Your task to perform on an android device: change keyboard looks Image 0: 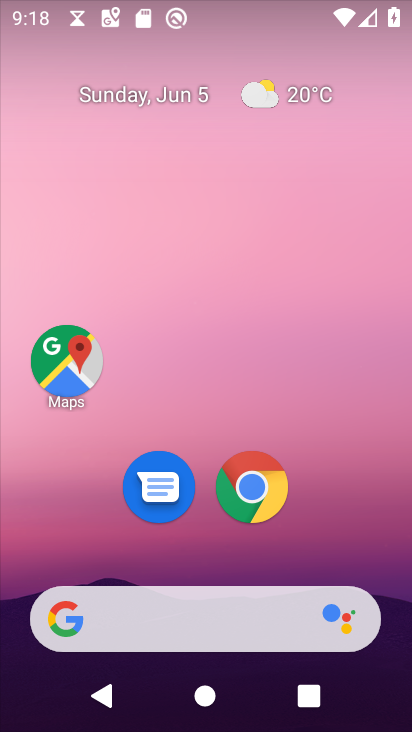
Step 0: drag from (310, 532) to (279, 226)
Your task to perform on an android device: change keyboard looks Image 1: 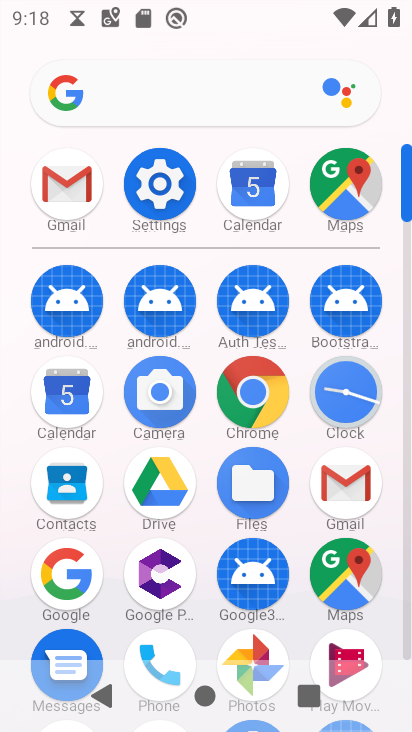
Step 1: click (139, 183)
Your task to perform on an android device: change keyboard looks Image 2: 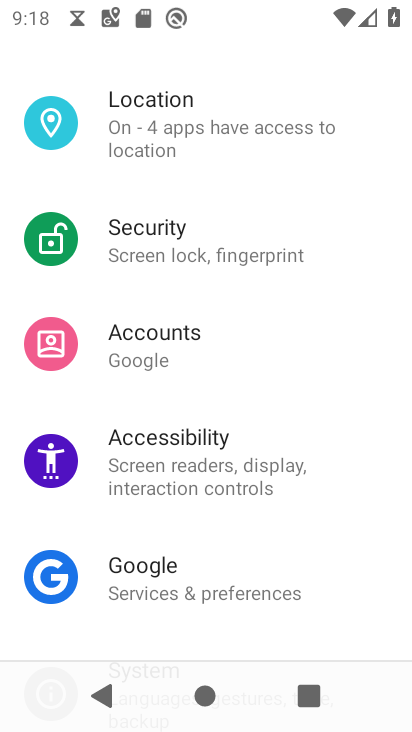
Step 2: drag from (203, 575) to (240, 173)
Your task to perform on an android device: change keyboard looks Image 3: 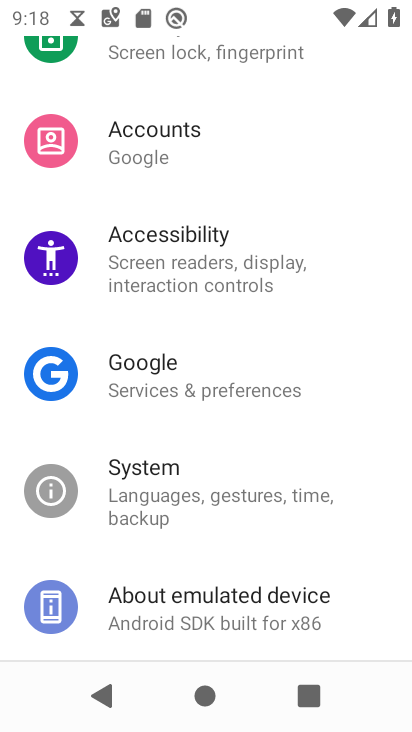
Step 3: click (222, 511)
Your task to perform on an android device: change keyboard looks Image 4: 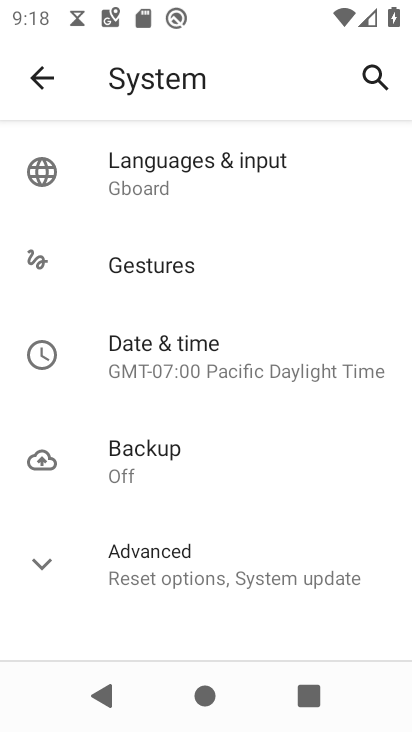
Step 4: click (174, 177)
Your task to perform on an android device: change keyboard looks Image 5: 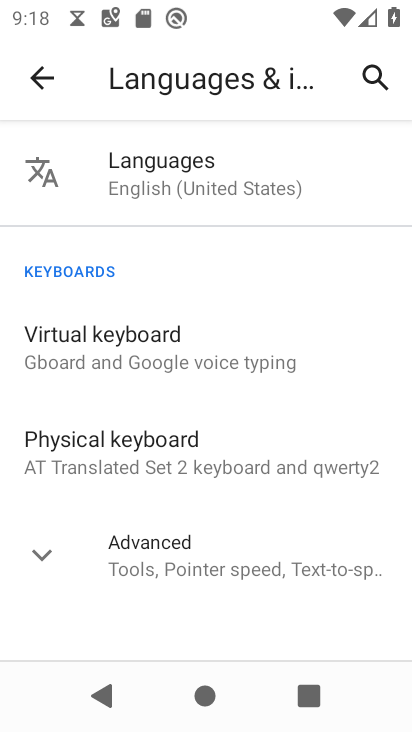
Step 5: click (153, 344)
Your task to perform on an android device: change keyboard looks Image 6: 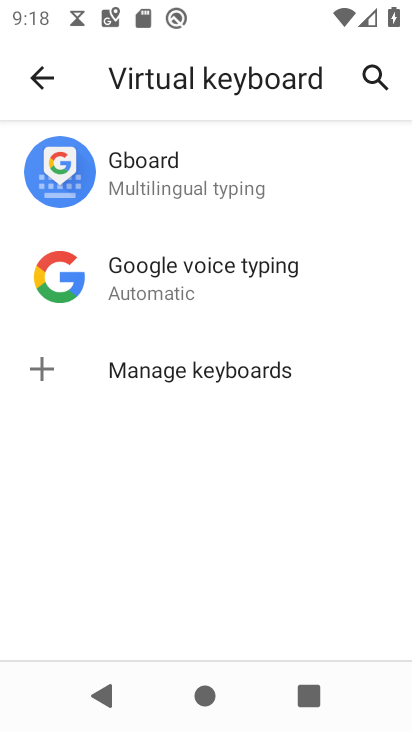
Step 6: click (132, 162)
Your task to perform on an android device: change keyboard looks Image 7: 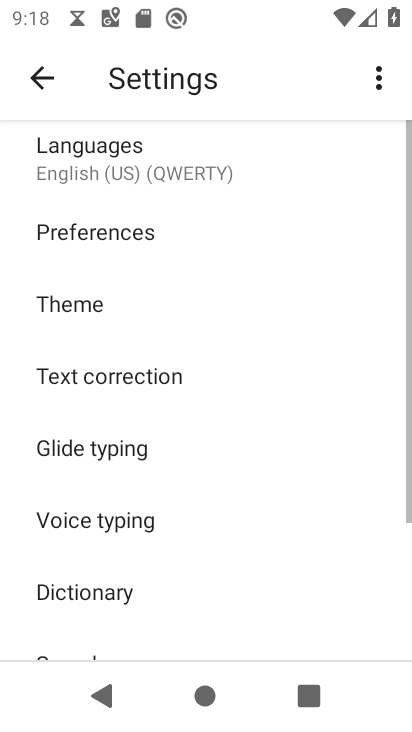
Step 7: click (59, 305)
Your task to perform on an android device: change keyboard looks Image 8: 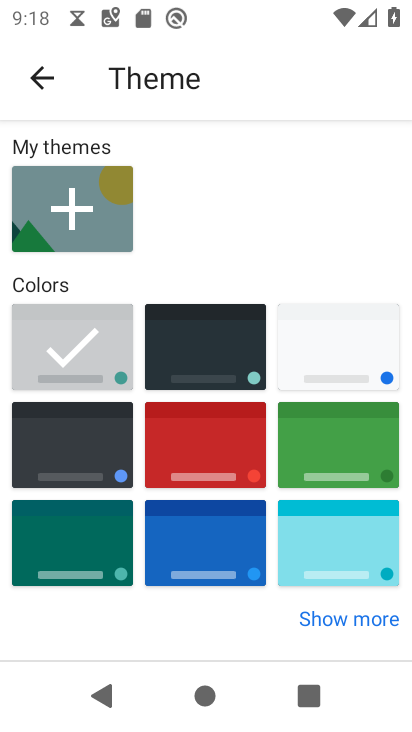
Step 8: click (307, 537)
Your task to perform on an android device: change keyboard looks Image 9: 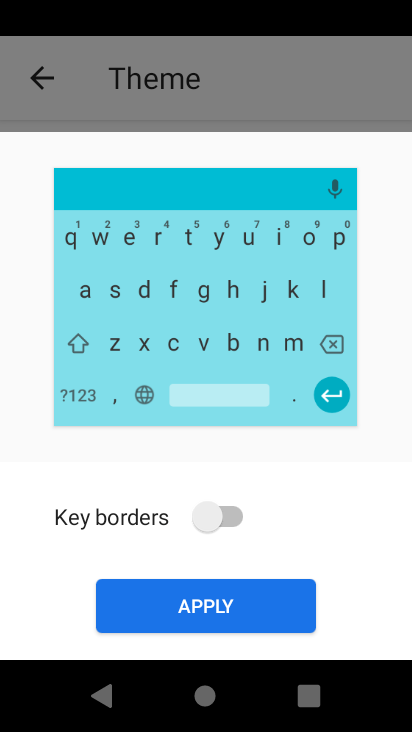
Step 9: click (222, 601)
Your task to perform on an android device: change keyboard looks Image 10: 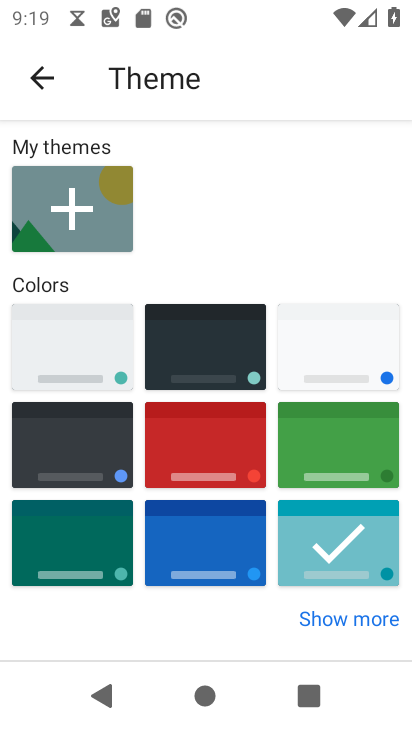
Step 10: task complete